Your task to perform on an android device: Open internet settings Image 0: 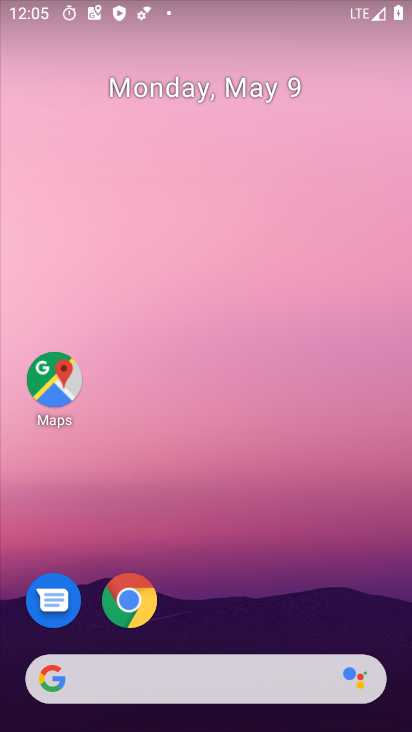
Step 0: drag from (273, 572) to (240, 280)
Your task to perform on an android device: Open internet settings Image 1: 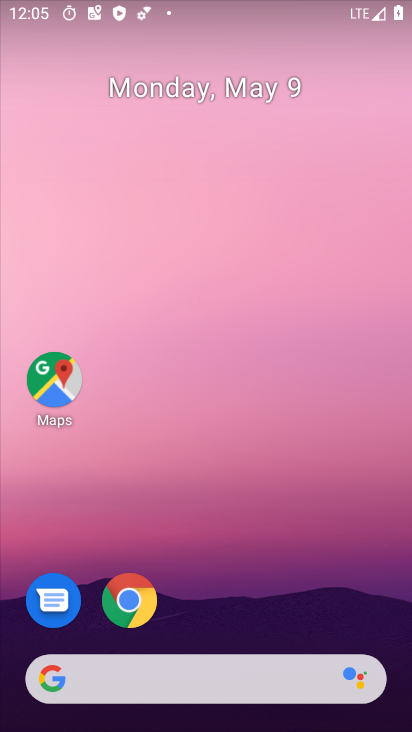
Step 1: drag from (298, 612) to (221, 171)
Your task to perform on an android device: Open internet settings Image 2: 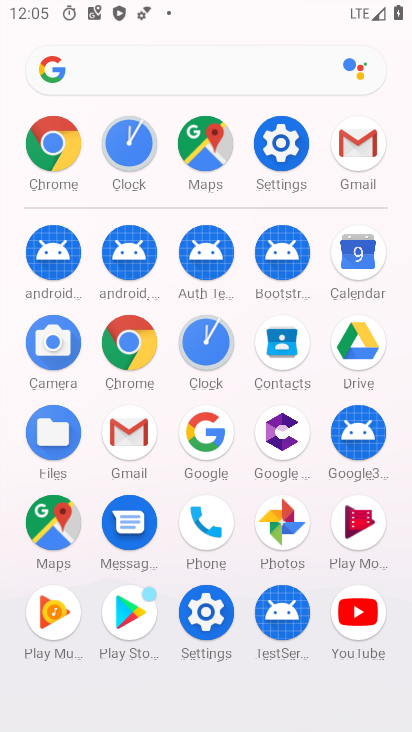
Step 2: click (266, 149)
Your task to perform on an android device: Open internet settings Image 3: 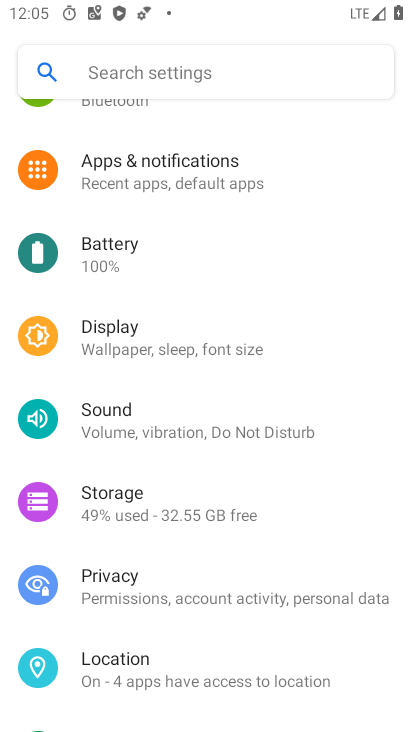
Step 3: drag from (191, 199) to (225, 598)
Your task to perform on an android device: Open internet settings Image 4: 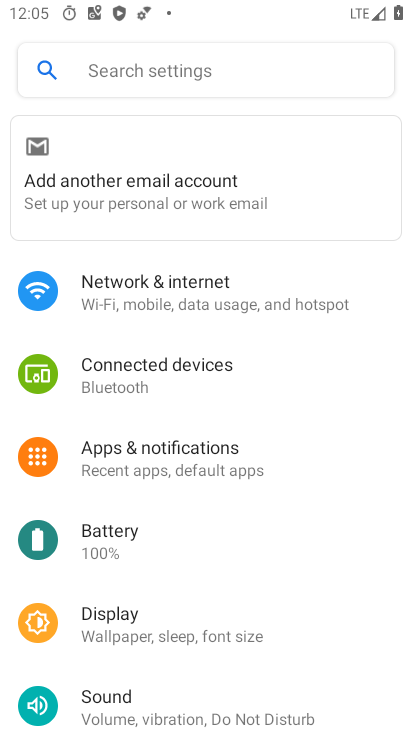
Step 4: click (189, 320)
Your task to perform on an android device: Open internet settings Image 5: 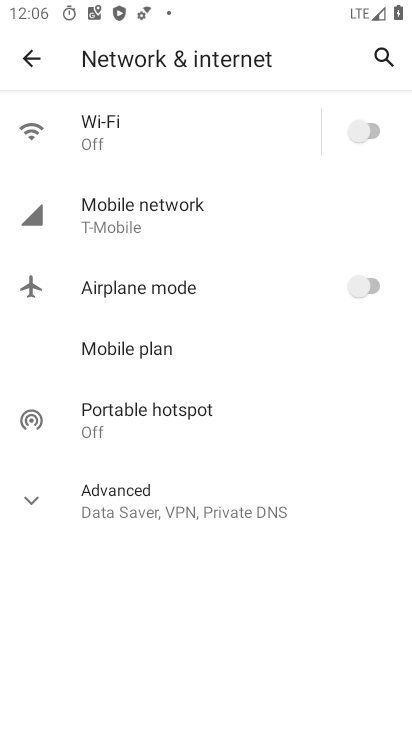
Step 5: click (225, 206)
Your task to perform on an android device: Open internet settings Image 6: 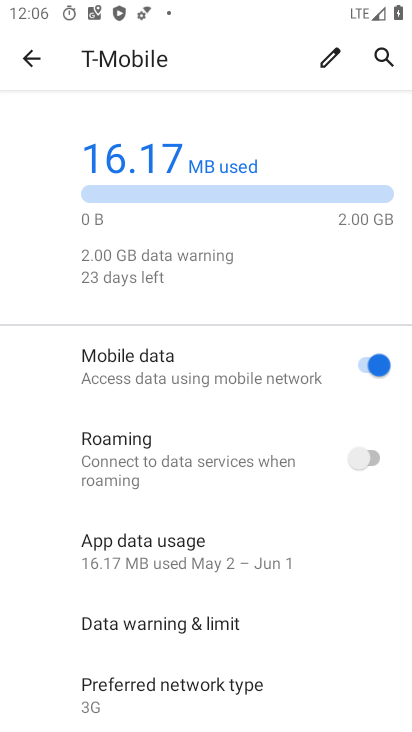
Step 6: task complete